Your task to perform on an android device: Go to wifi settings Image 0: 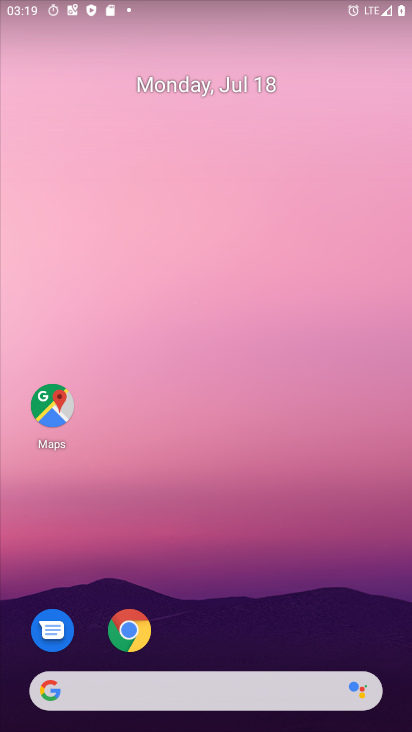
Step 0: drag from (189, 11) to (204, 497)
Your task to perform on an android device: Go to wifi settings Image 1: 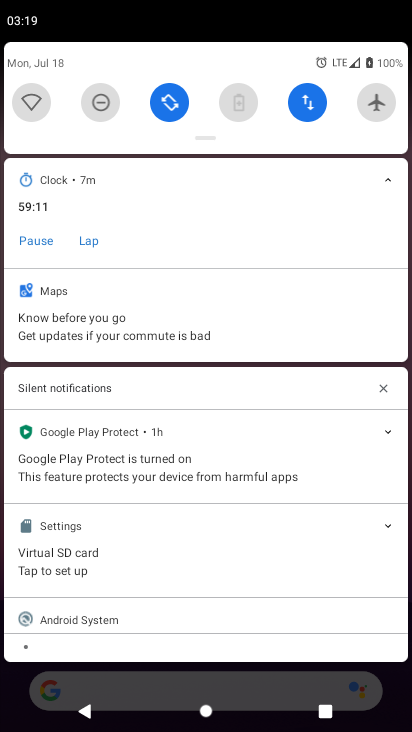
Step 1: click (42, 98)
Your task to perform on an android device: Go to wifi settings Image 2: 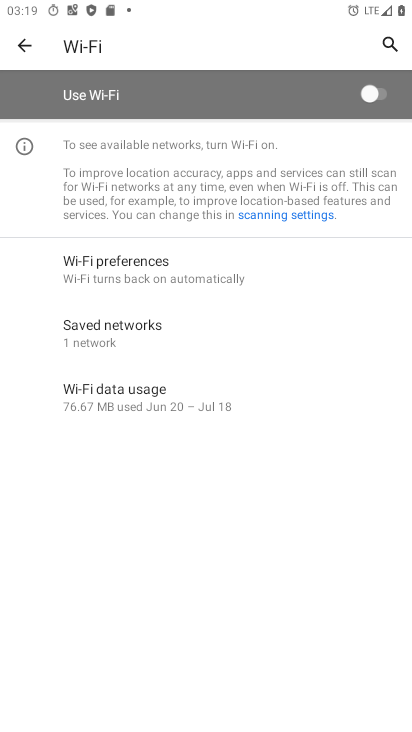
Step 2: task complete